Your task to perform on an android device: turn on wifi Image 0: 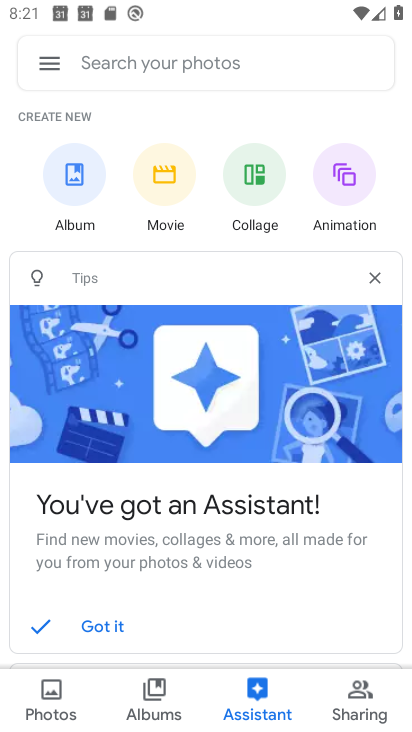
Step 0: press home button
Your task to perform on an android device: turn on wifi Image 1: 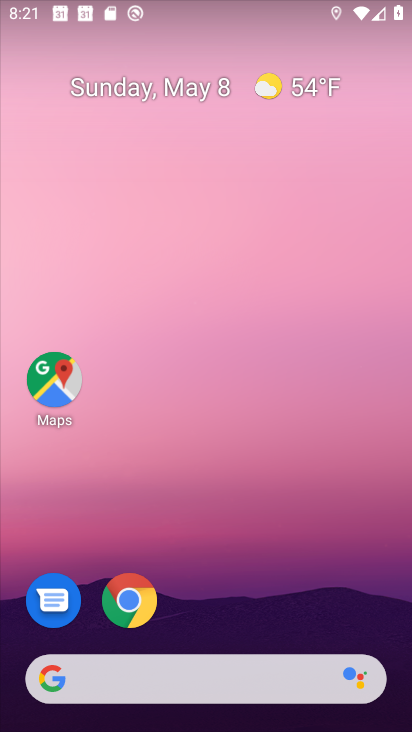
Step 1: drag from (292, 589) to (208, 190)
Your task to perform on an android device: turn on wifi Image 2: 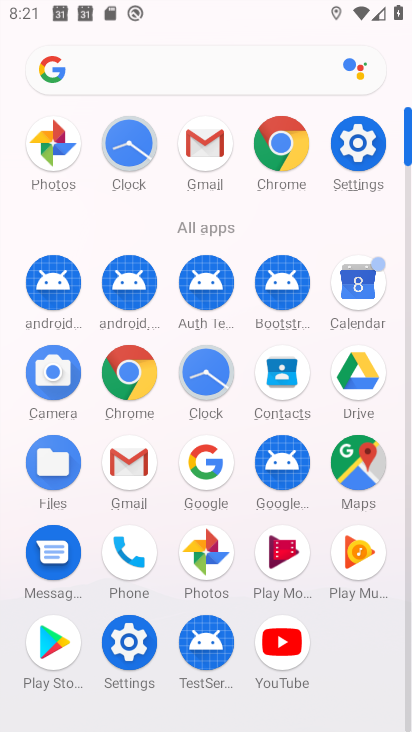
Step 2: click (355, 149)
Your task to perform on an android device: turn on wifi Image 3: 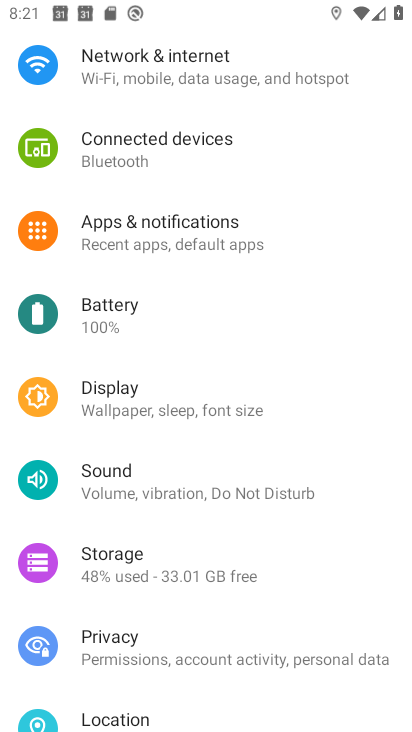
Step 3: drag from (355, 149) to (321, 646)
Your task to perform on an android device: turn on wifi Image 4: 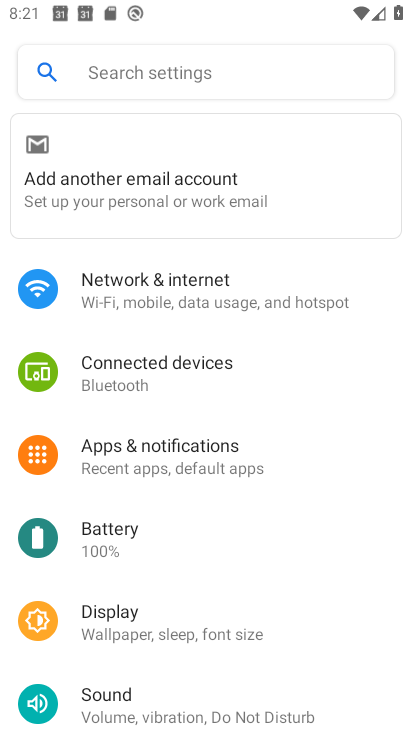
Step 4: click (227, 312)
Your task to perform on an android device: turn on wifi Image 5: 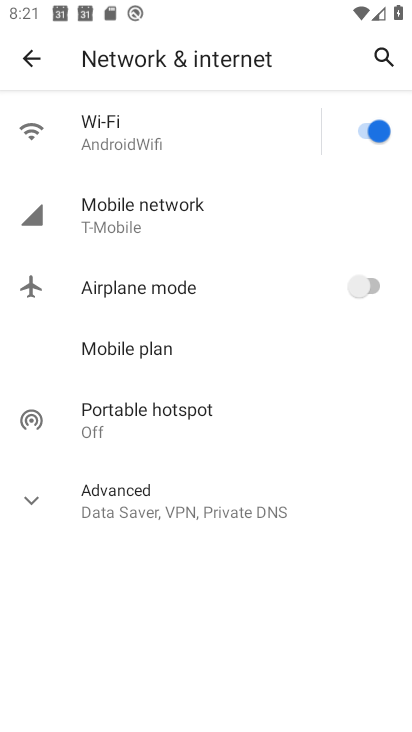
Step 5: task complete